Your task to perform on an android device: turn on translation in the chrome app Image 0: 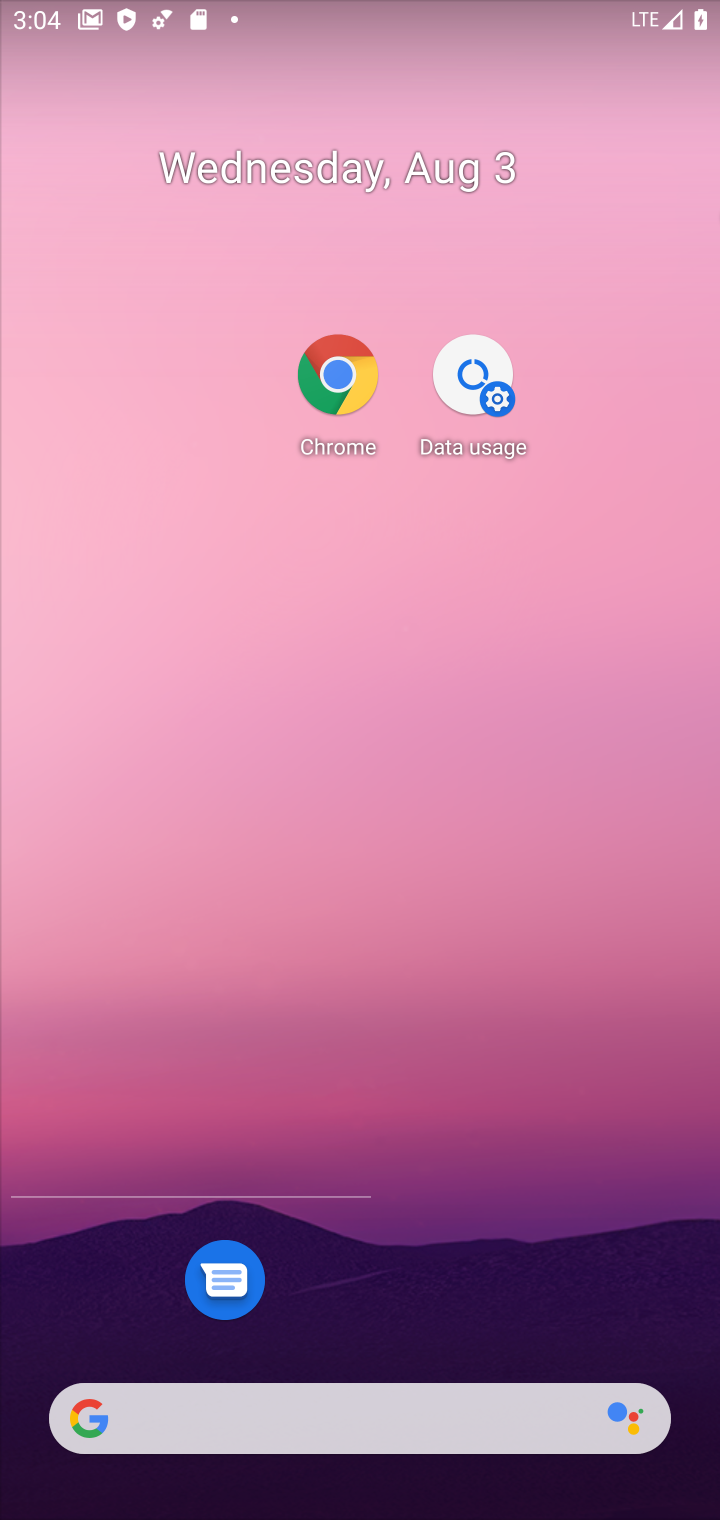
Step 0: press home button
Your task to perform on an android device: turn on translation in the chrome app Image 1: 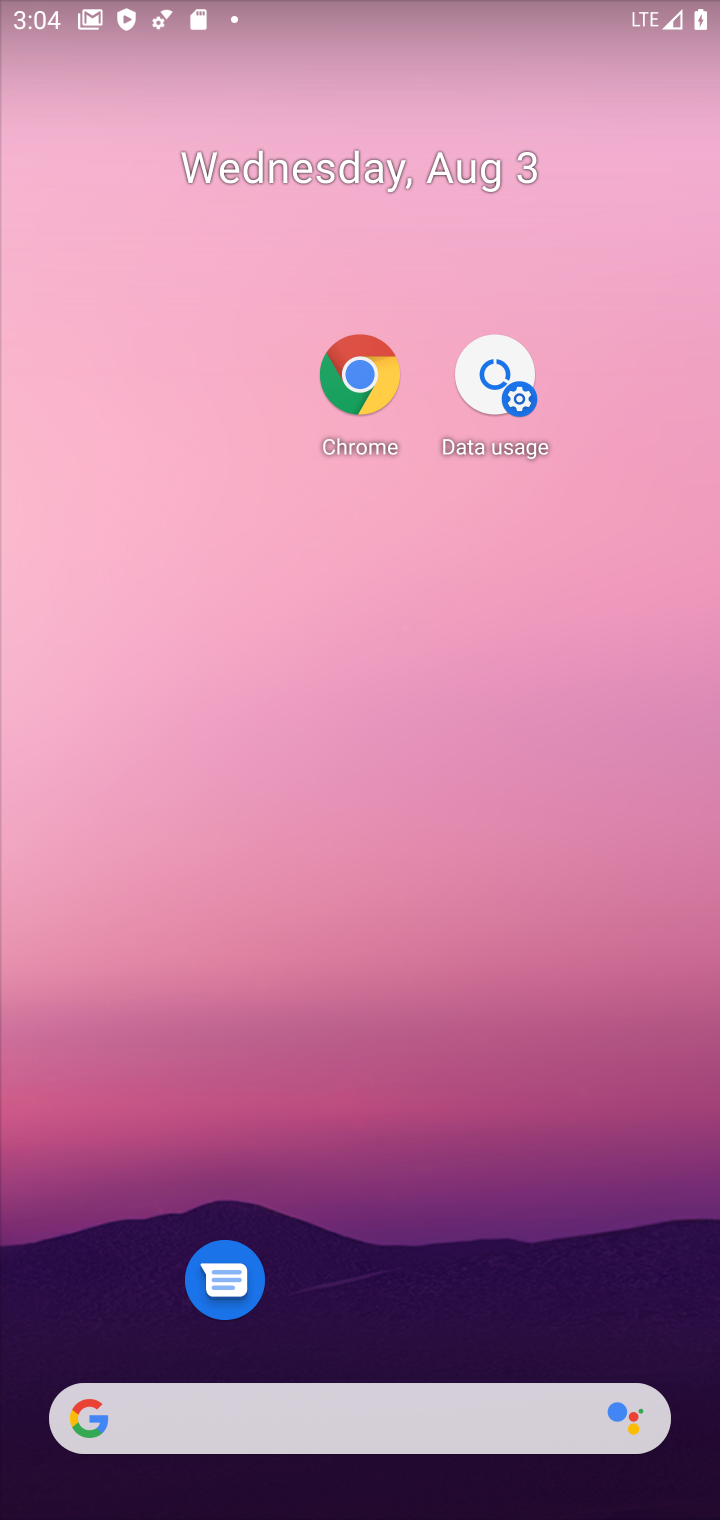
Step 1: drag from (205, 1219) to (20, 541)
Your task to perform on an android device: turn on translation in the chrome app Image 2: 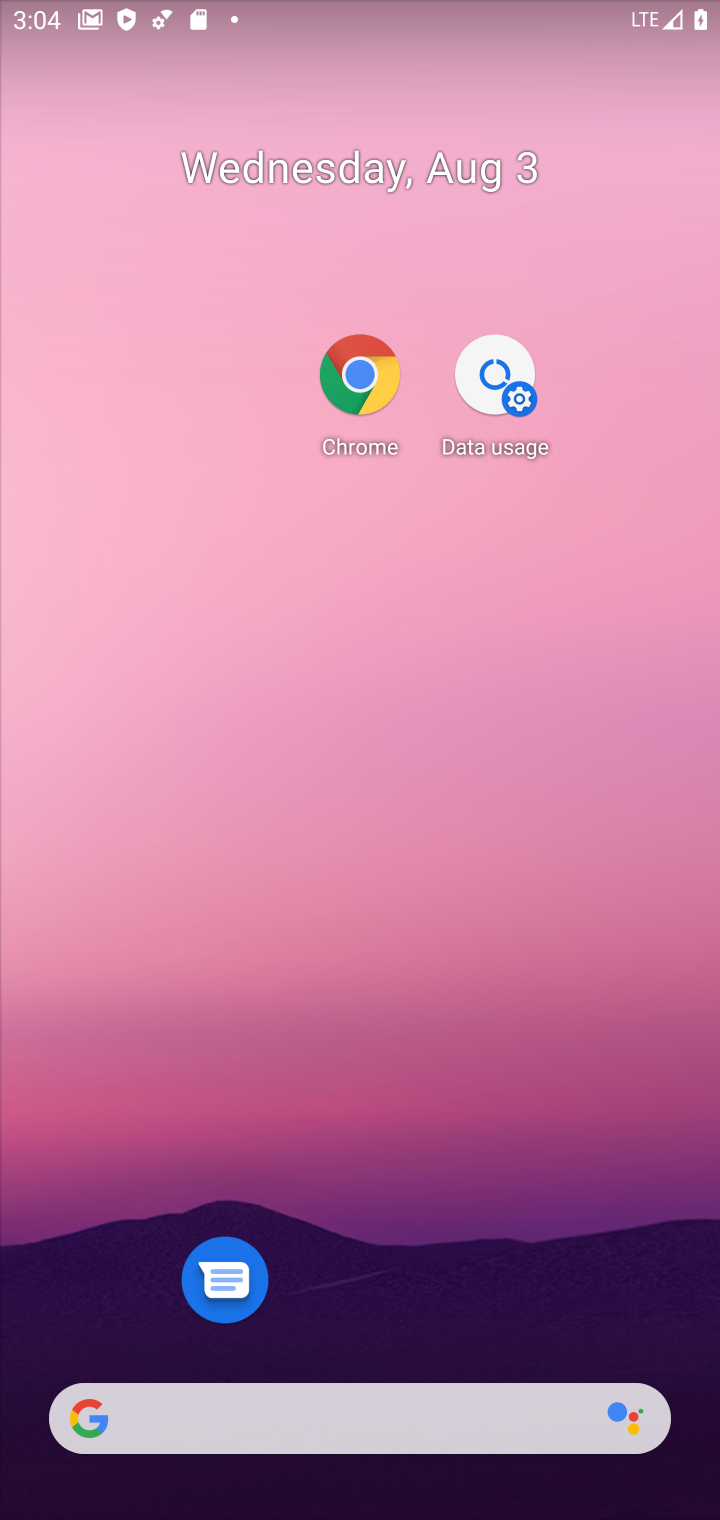
Step 2: click (192, 478)
Your task to perform on an android device: turn on translation in the chrome app Image 3: 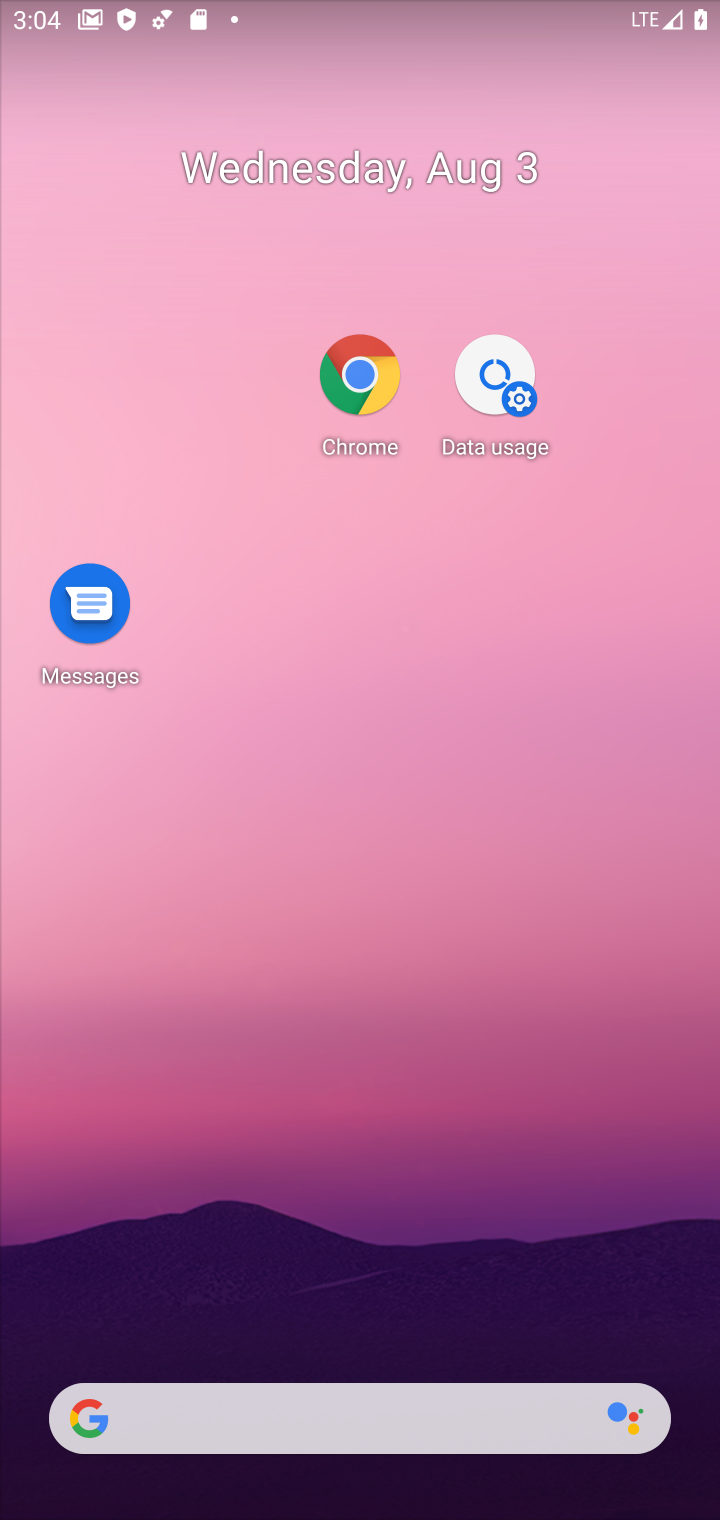
Step 3: drag from (422, 1448) to (197, 597)
Your task to perform on an android device: turn on translation in the chrome app Image 4: 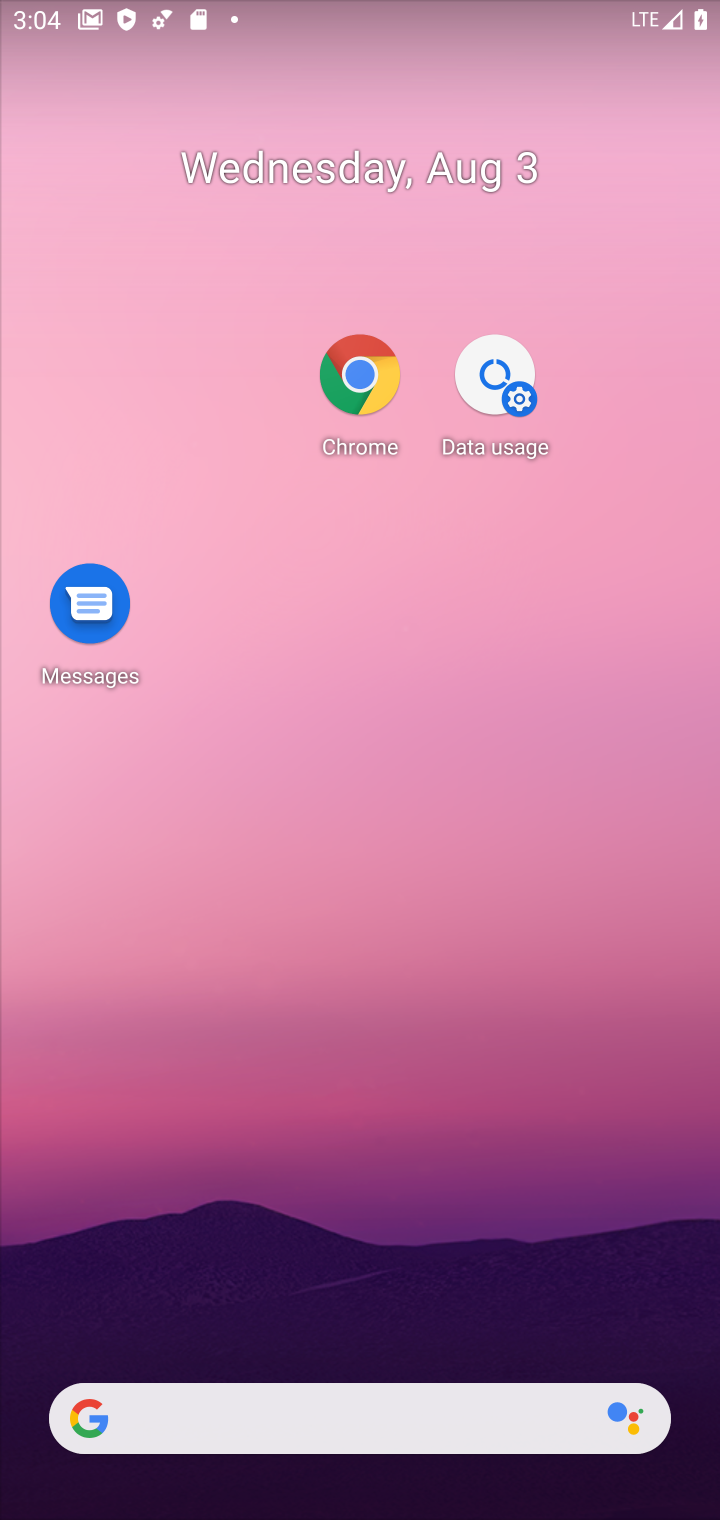
Step 4: click (261, 740)
Your task to perform on an android device: turn on translation in the chrome app Image 5: 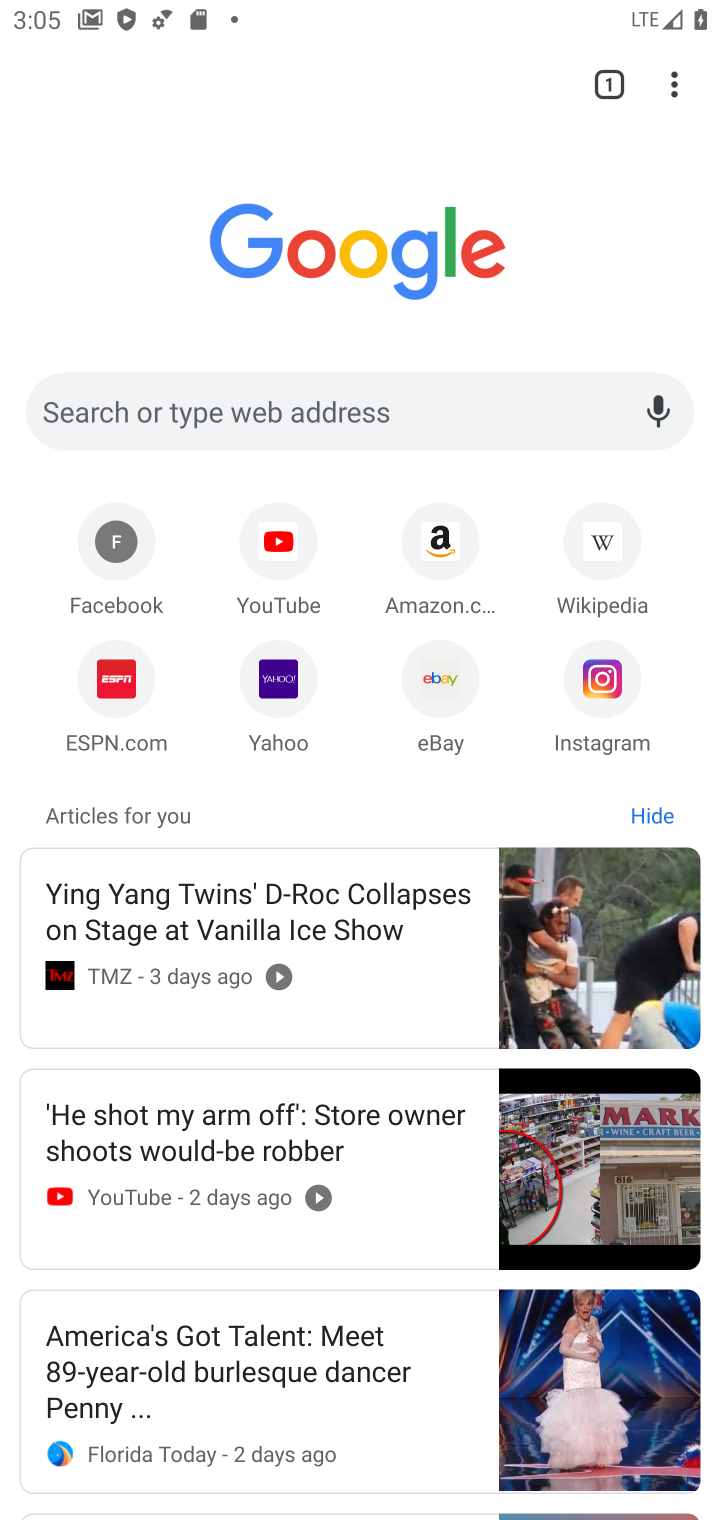
Step 5: drag from (676, 87) to (358, 710)
Your task to perform on an android device: turn on translation in the chrome app Image 6: 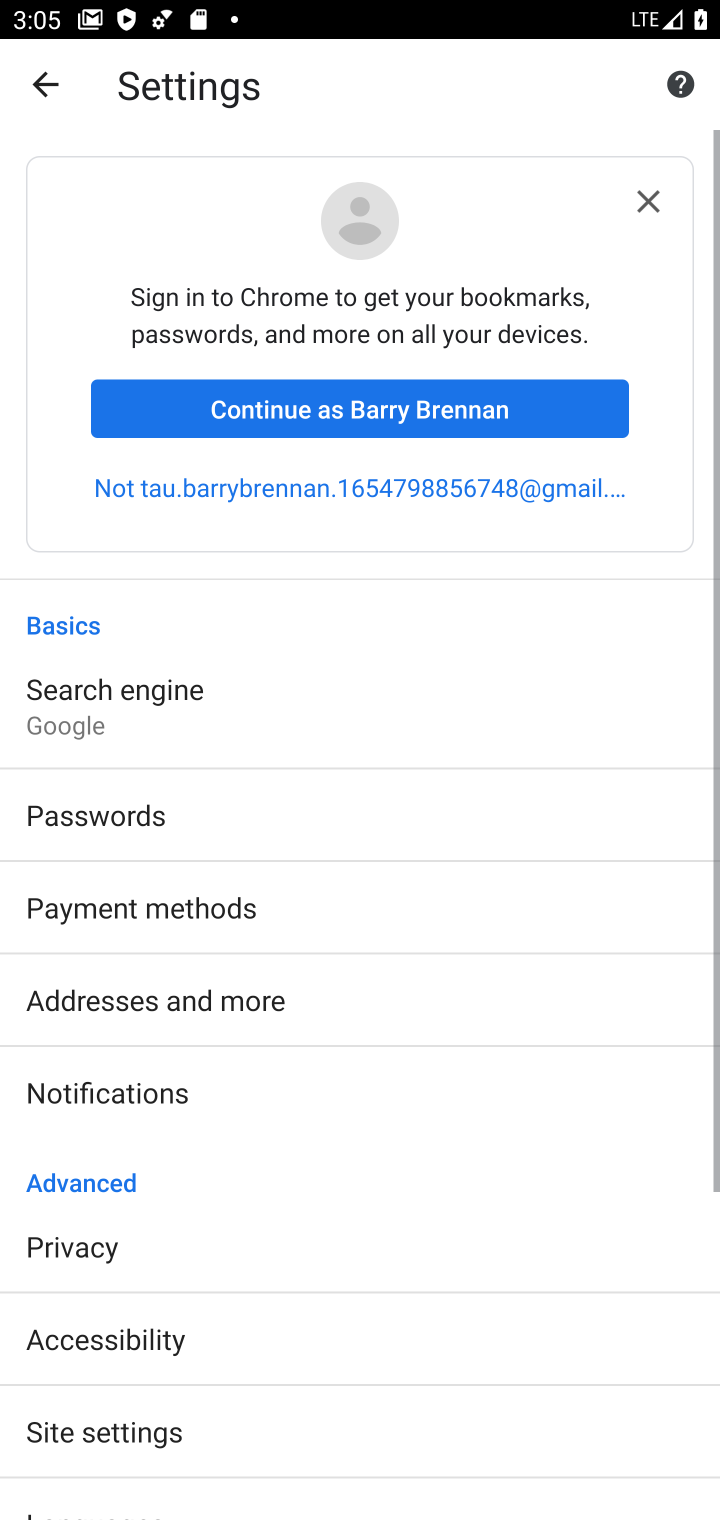
Step 6: drag from (192, 1296) to (115, 603)
Your task to perform on an android device: turn on translation in the chrome app Image 7: 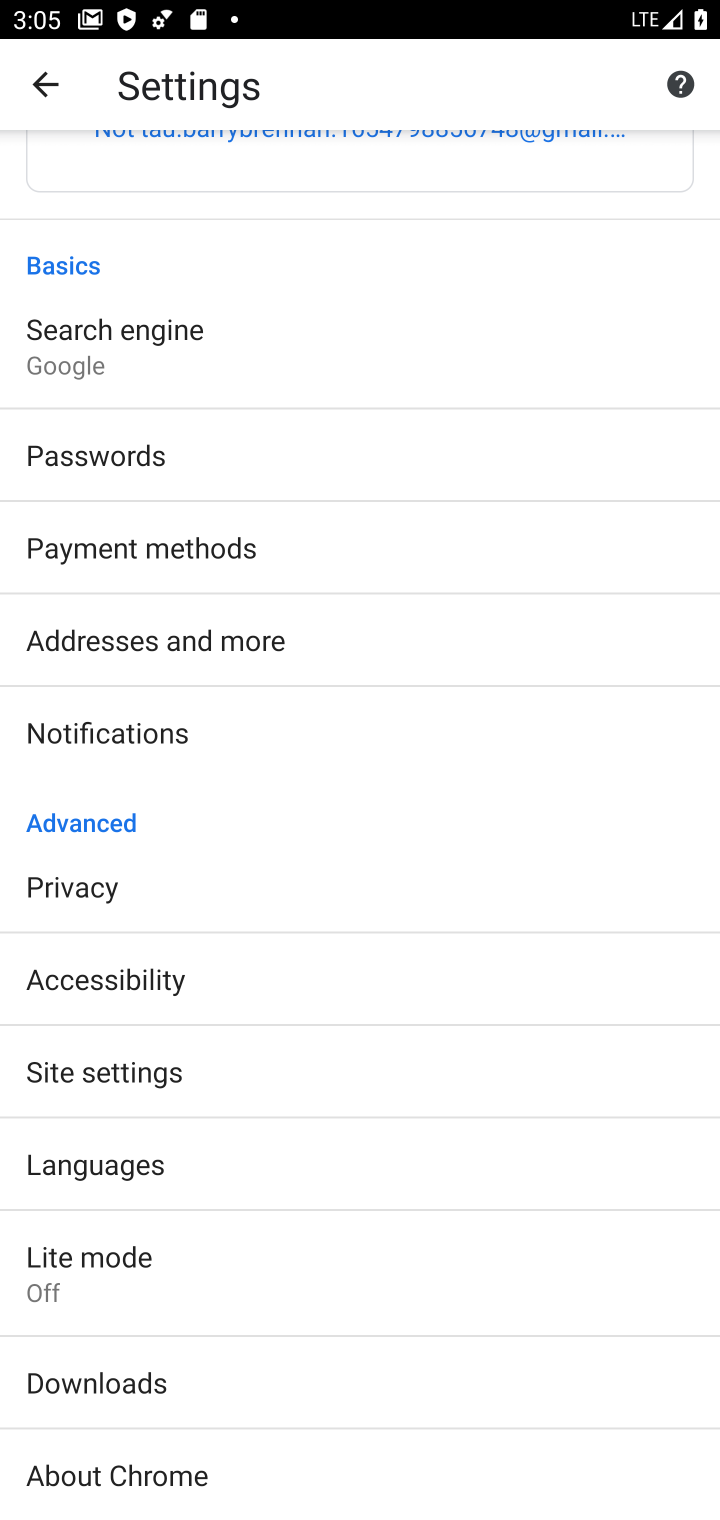
Step 7: click (143, 1167)
Your task to perform on an android device: turn on translation in the chrome app Image 8: 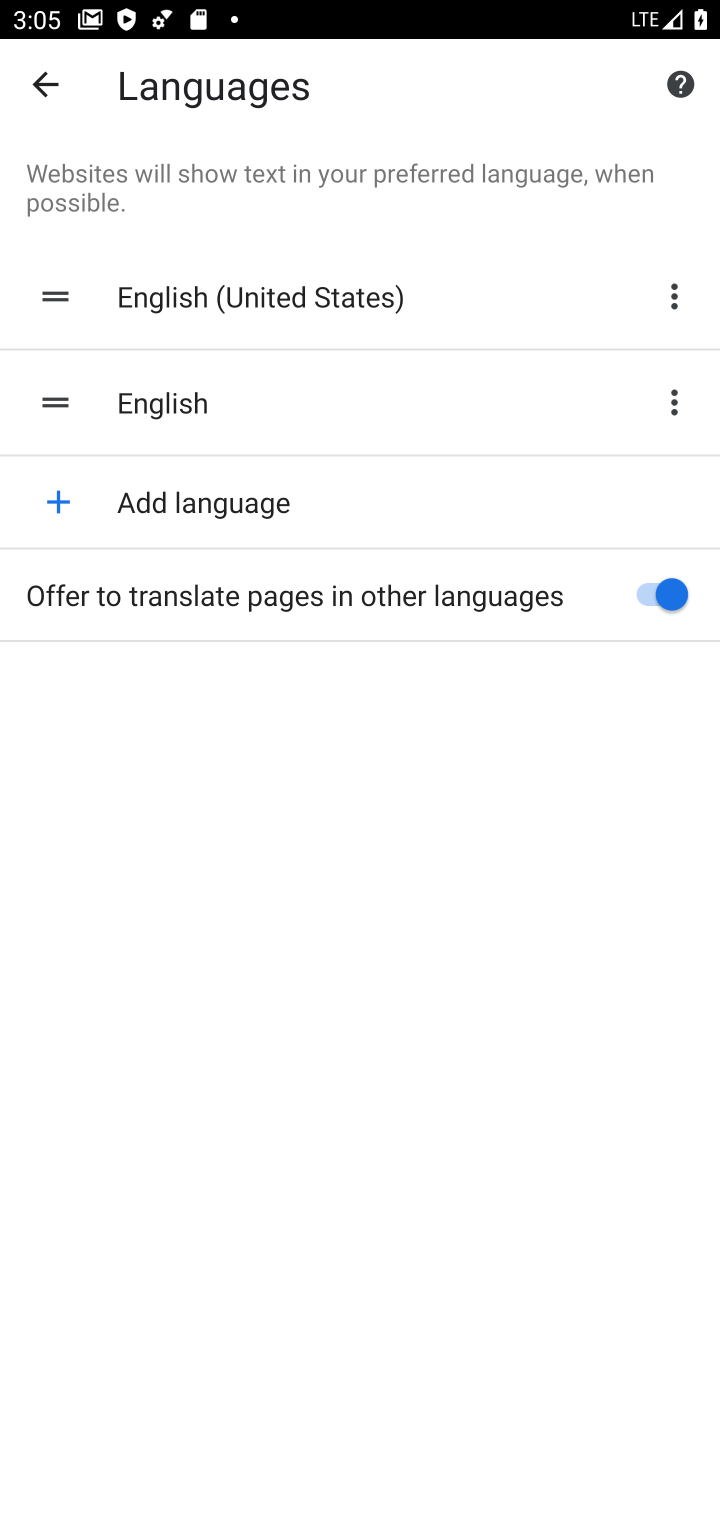
Step 8: click (664, 593)
Your task to perform on an android device: turn on translation in the chrome app Image 9: 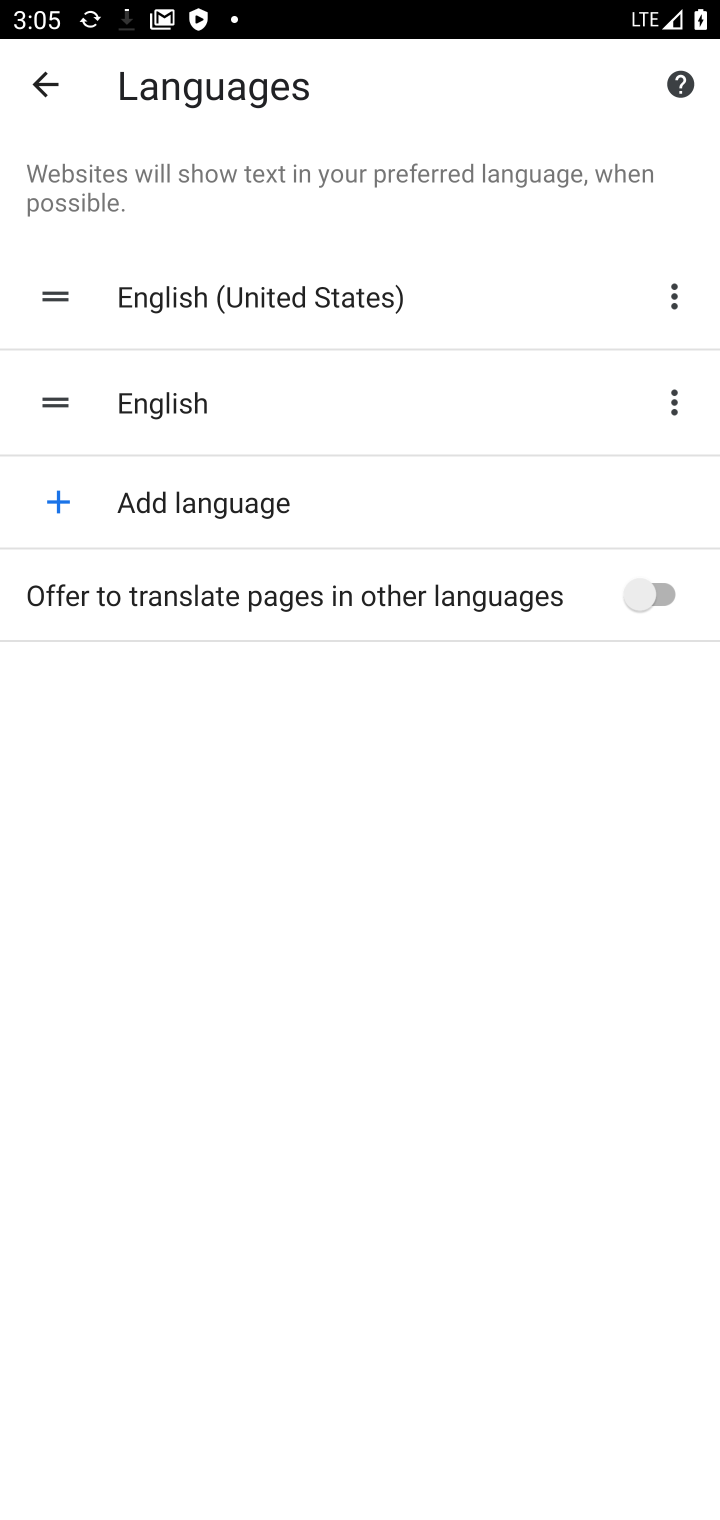
Step 9: click (625, 591)
Your task to perform on an android device: turn on translation in the chrome app Image 10: 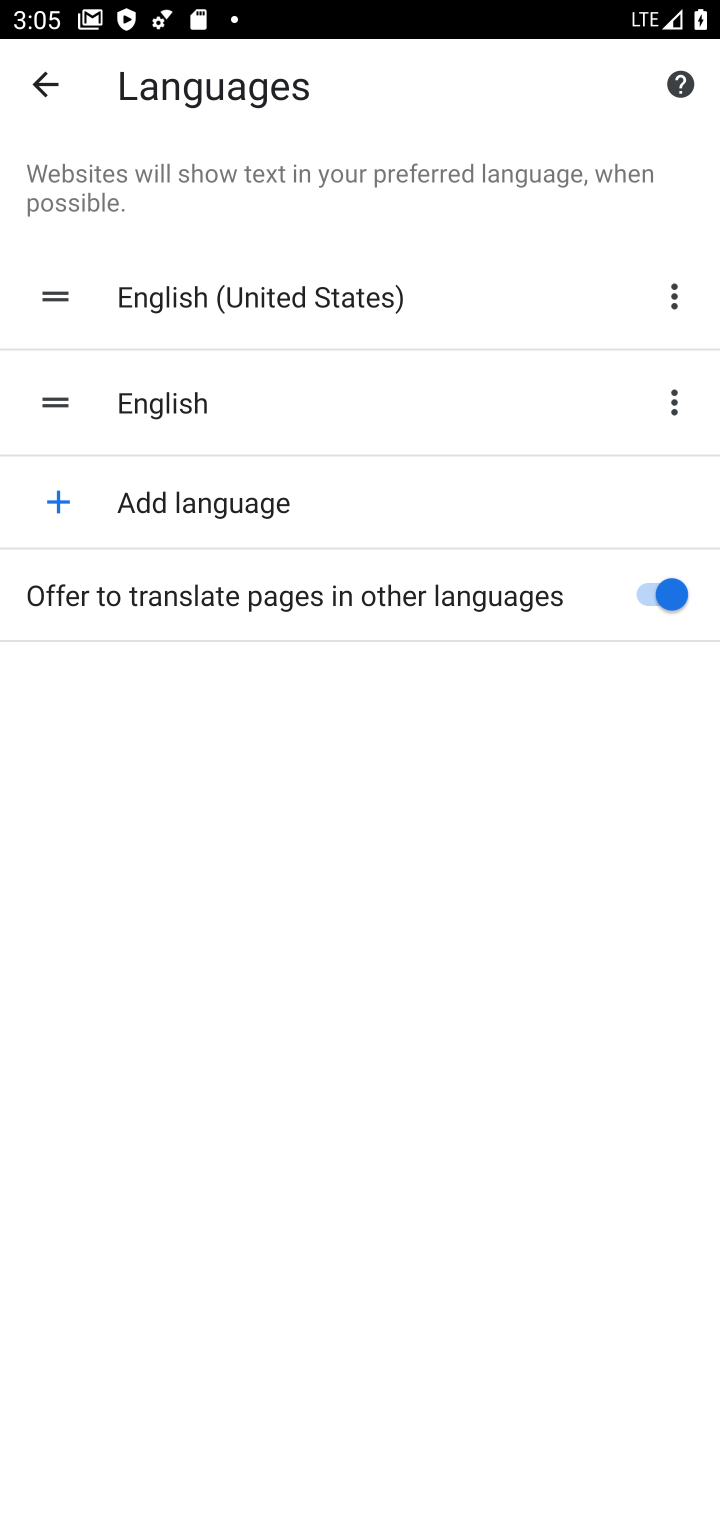
Step 10: task complete